Your task to perform on an android device: Clear all items from cart on ebay.com. Add "dell xps" to the cart on ebay.com Image 0: 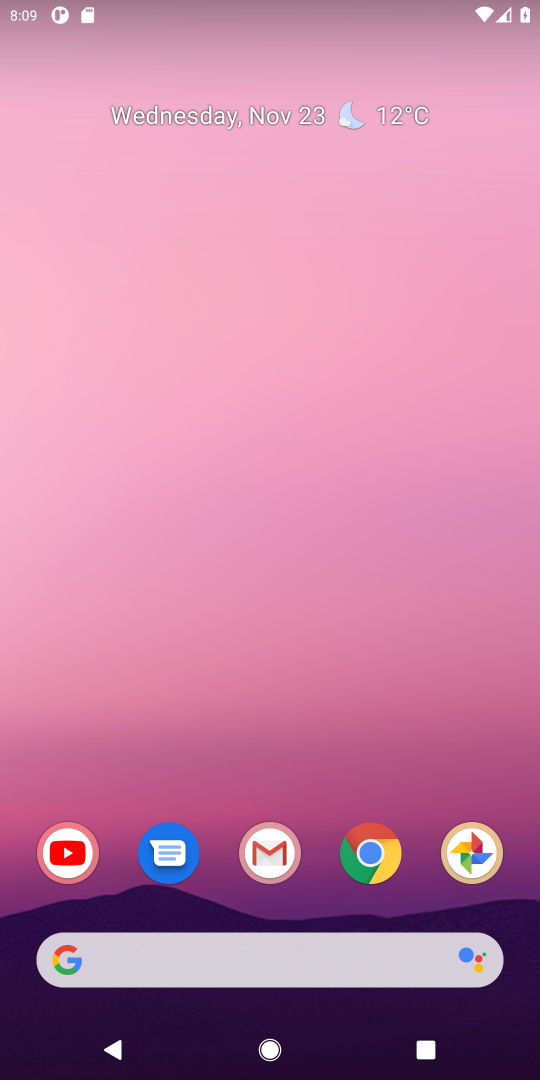
Step 0: click (367, 848)
Your task to perform on an android device: Clear all items from cart on ebay.com. Add "dell xps" to the cart on ebay.com Image 1: 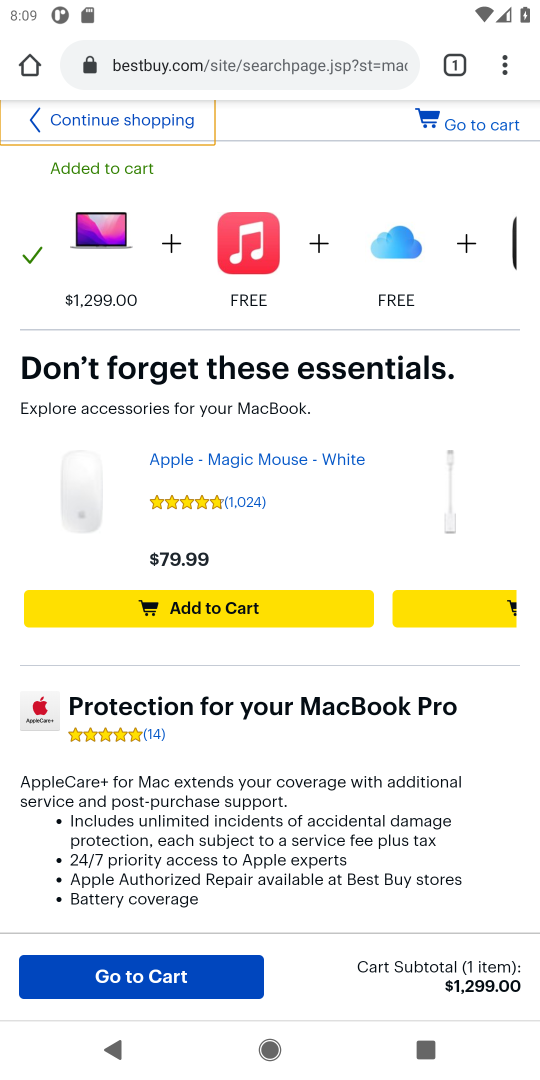
Step 1: click (182, 58)
Your task to perform on an android device: Clear all items from cart on ebay.com. Add "dell xps" to the cart on ebay.com Image 2: 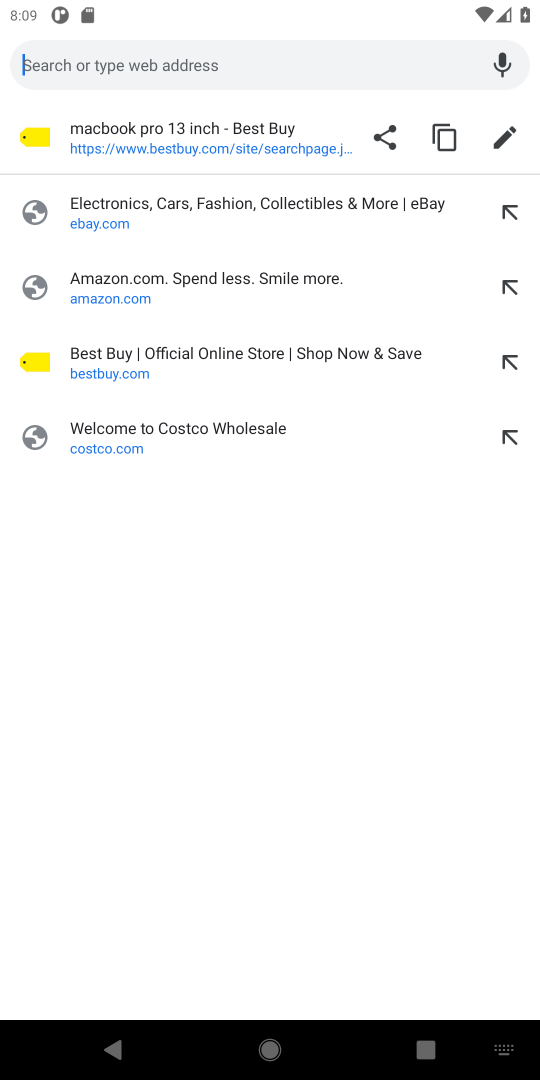
Step 2: click (98, 219)
Your task to perform on an android device: Clear all items from cart on ebay.com. Add "dell xps" to the cart on ebay.com Image 3: 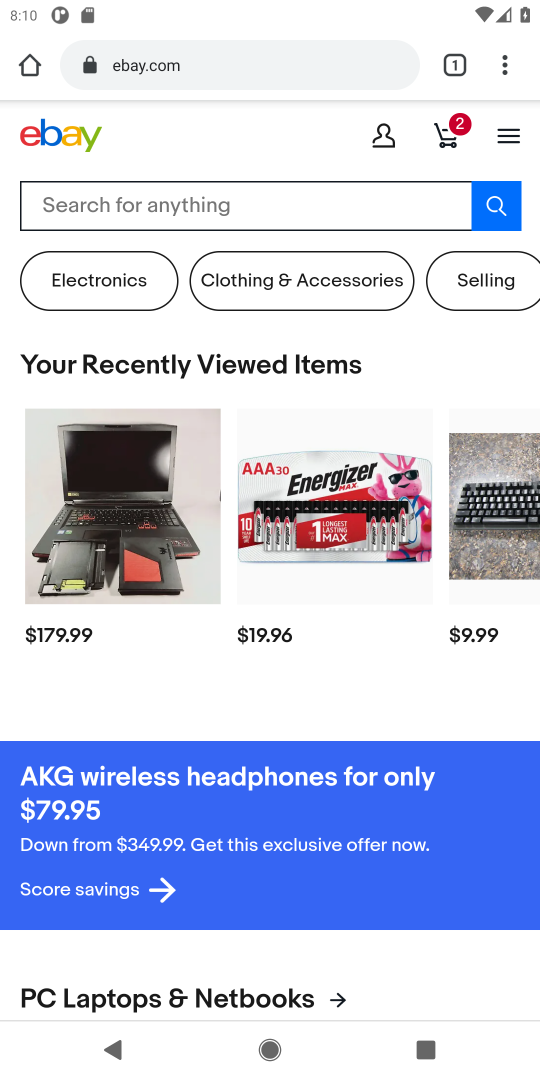
Step 3: click (444, 138)
Your task to perform on an android device: Clear all items from cart on ebay.com. Add "dell xps" to the cart on ebay.com Image 4: 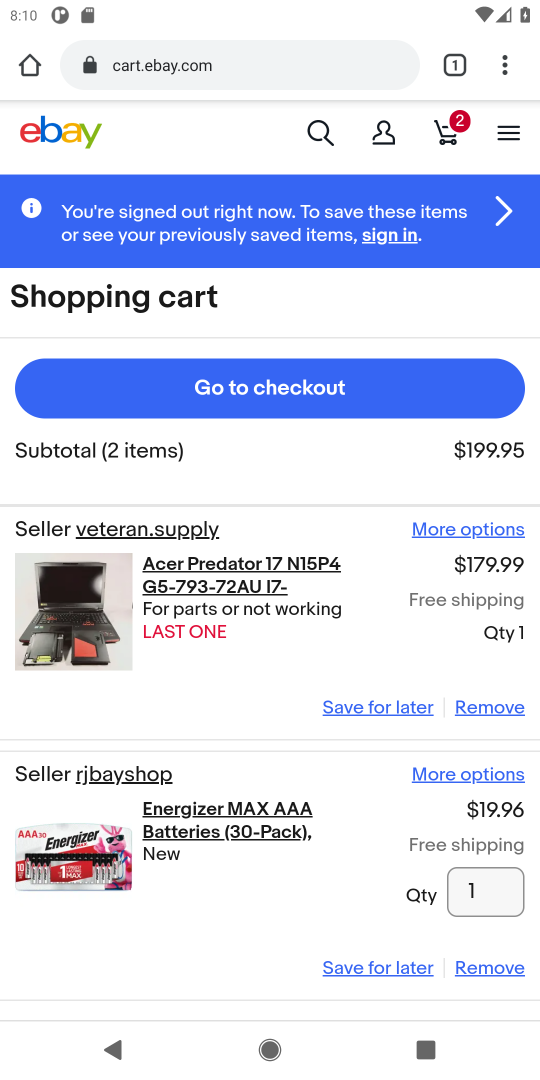
Step 4: click (482, 704)
Your task to perform on an android device: Clear all items from cart on ebay.com. Add "dell xps" to the cart on ebay.com Image 5: 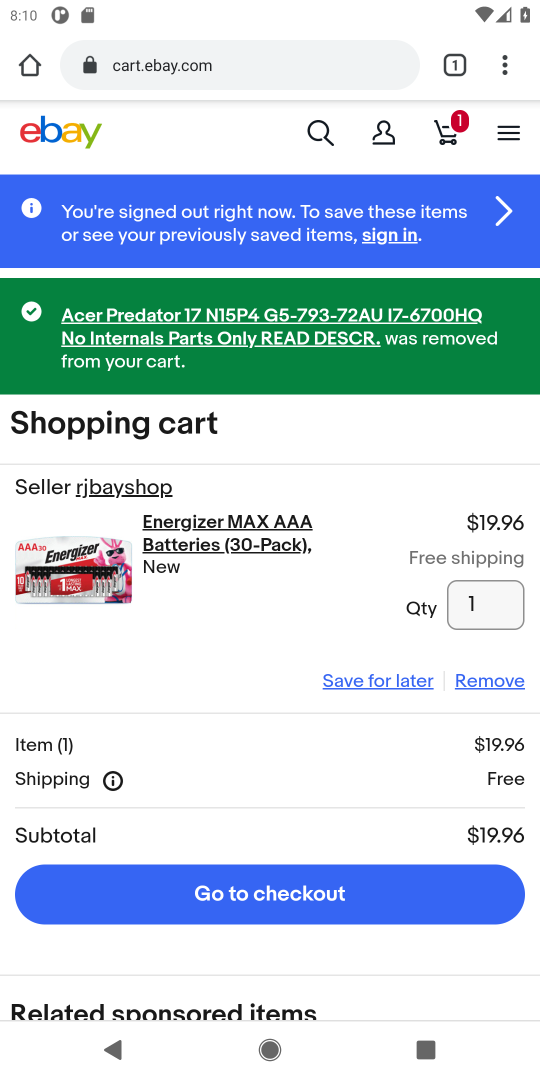
Step 5: click (486, 677)
Your task to perform on an android device: Clear all items from cart on ebay.com. Add "dell xps" to the cart on ebay.com Image 6: 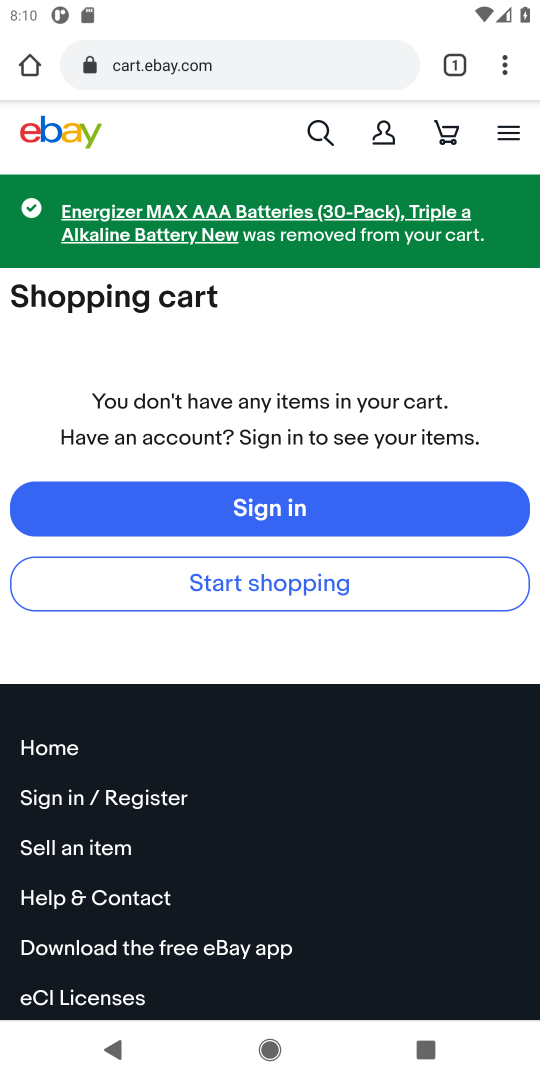
Step 6: click (314, 133)
Your task to perform on an android device: Clear all items from cart on ebay.com. Add "dell xps" to the cart on ebay.com Image 7: 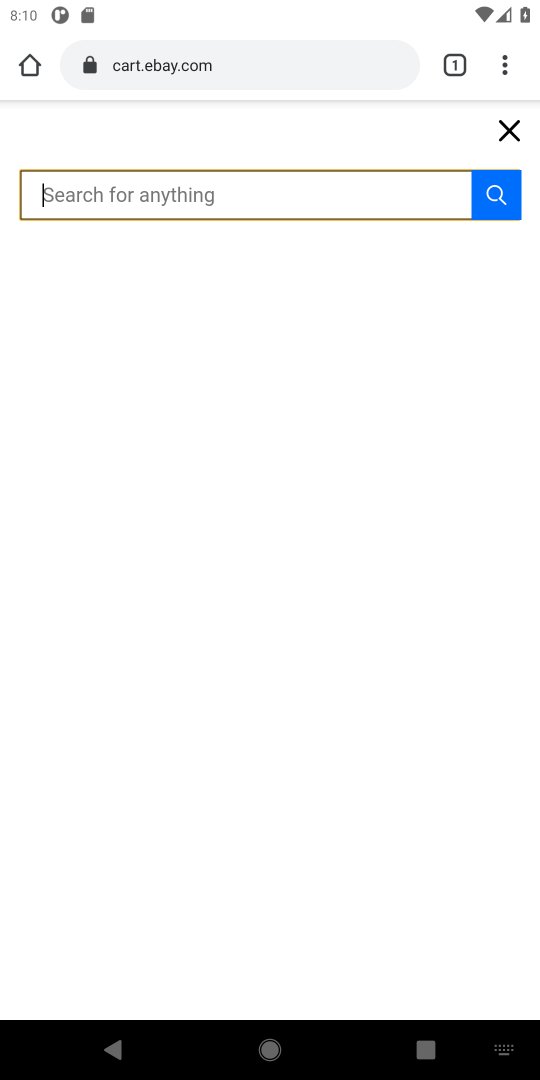
Step 7: type "dell xps"
Your task to perform on an android device: Clear all items from cart on ebay.com. Add "dell xps" to the cart on ebay.com Image 8: 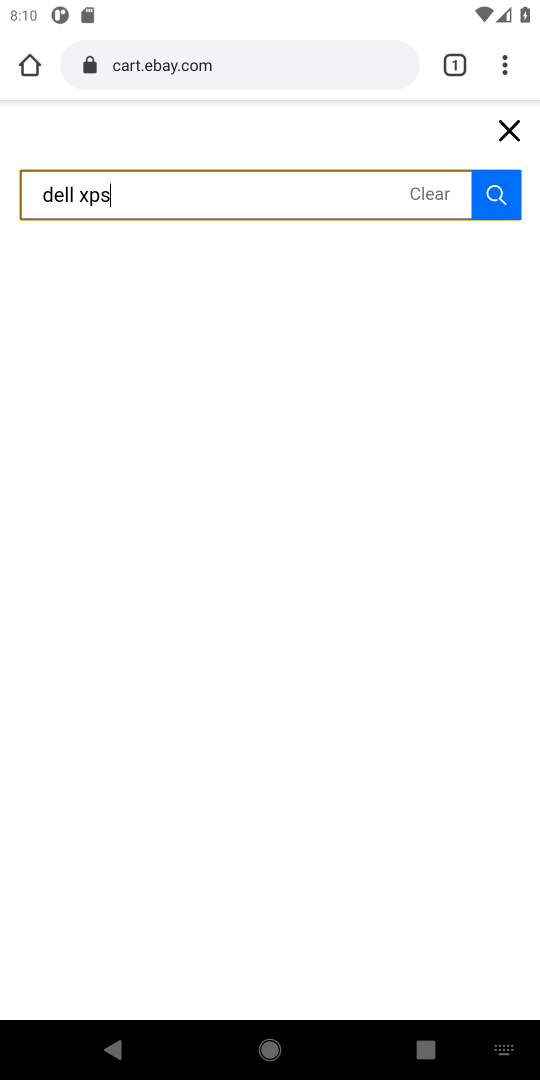
Step 8: click (500, 190)
Your task to perform on an android device: Clear all items from cart on ebay.com. Add "dell xps" to the cart on ebay.com Image 9: 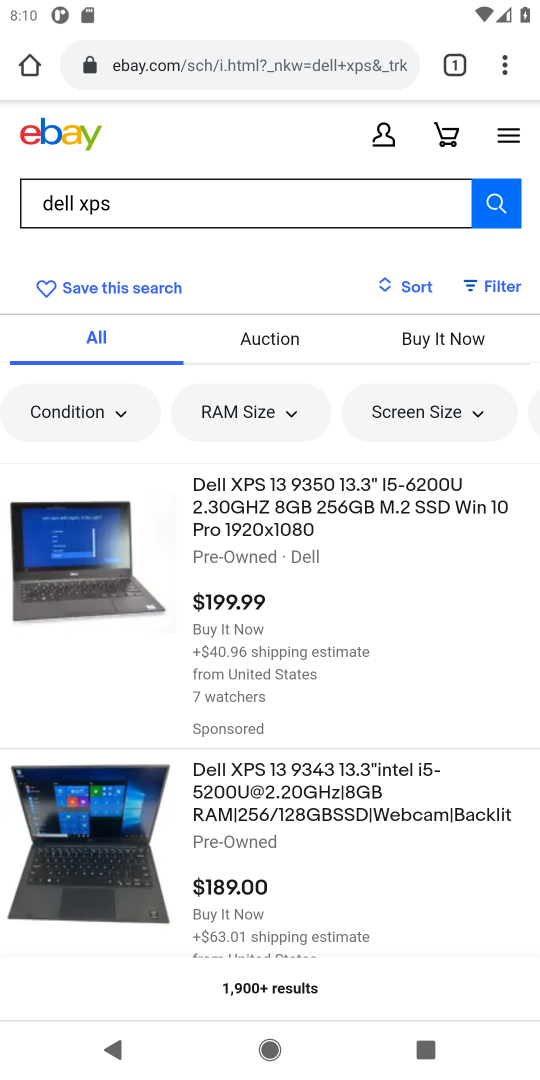
Step 9: click (63, 595)
Your task to perform on an android device: Clear all items from cart on ebay.com. Add "dell xps" to the cart on ebay.com Image 10: 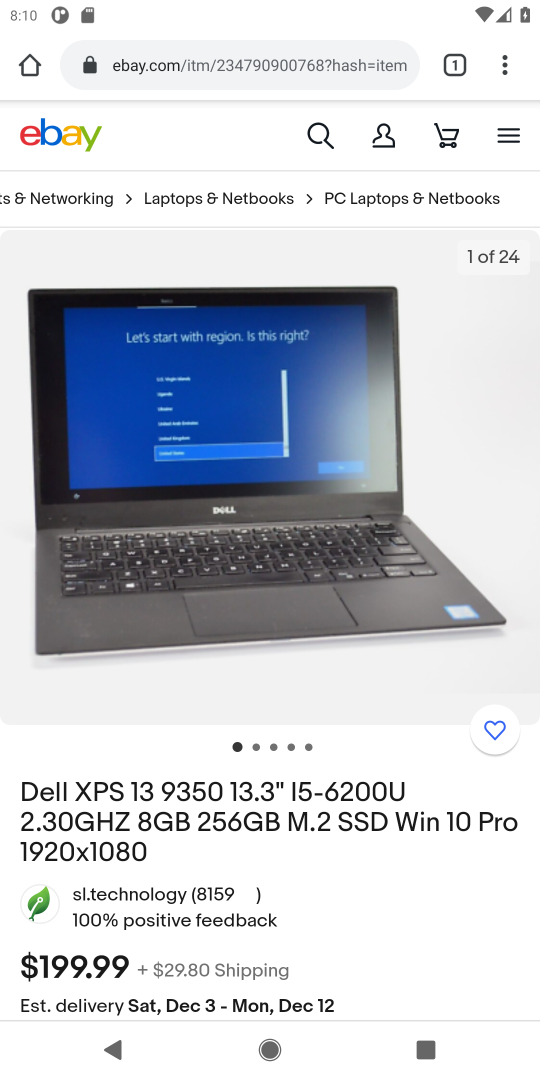
Step 10: drag from (210, 663) to (215, 435)
Your task to perform on an android device: Clear all items from cart on ebay.com. Add "dell xps" to the cart on ebay.com Image 11: 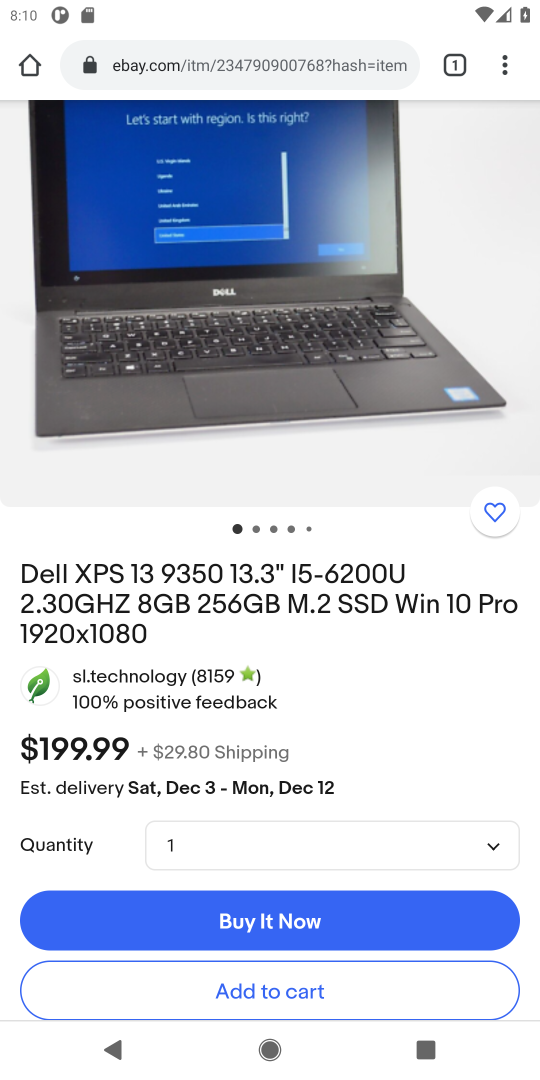
Step 11: drag from (346, 778) to (306, 478)
Your task to perform on an android device: Clear all items from cart on ebay.com. Add "dell xps" to the cart on ebay.com Image 12: 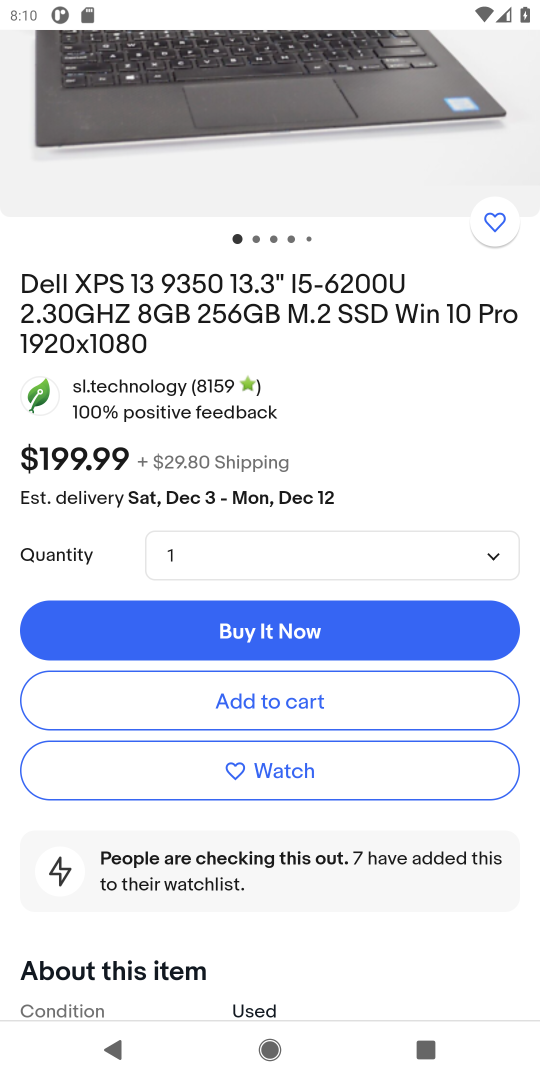
Step 12: click (261, 710)
Your task to perform on an android device: Clear all items from cart on ebay.com. Add "dell xps" to the cart on ebay.com Image 13: 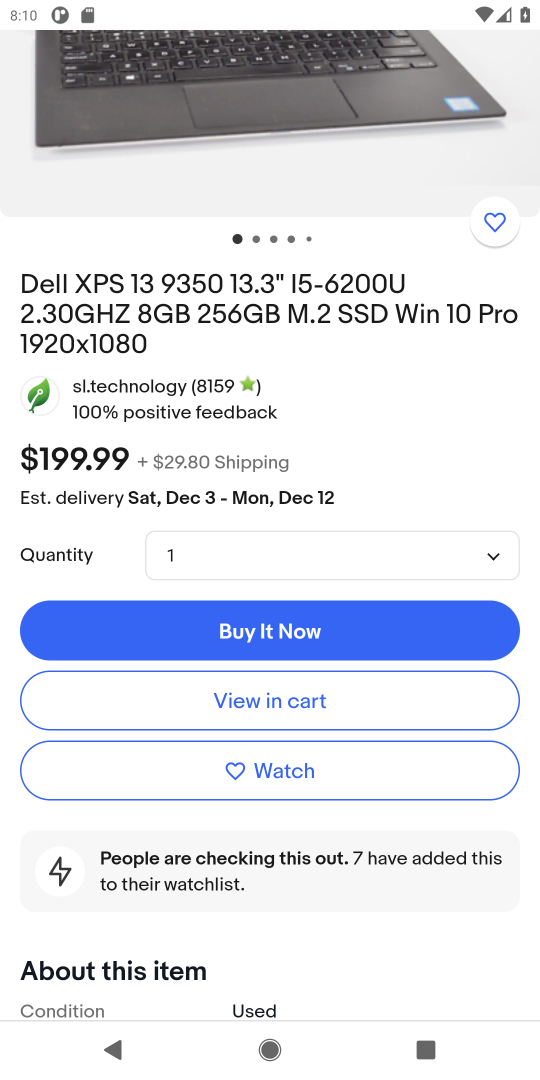
Step 13: task complete